Your task to perform on an android device: Show me recent news Image 0: 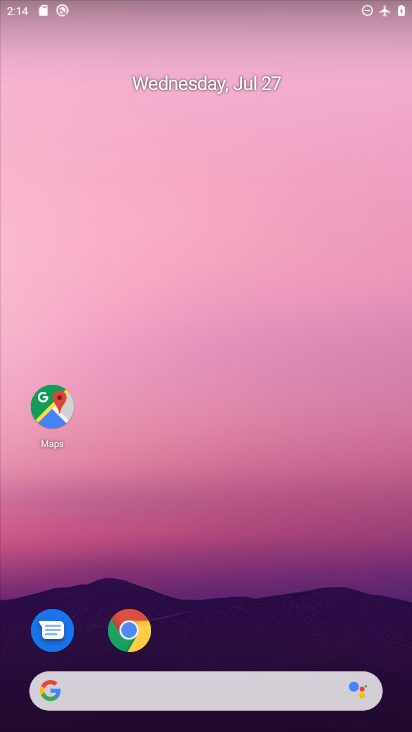
Step 0: drag from (4, 327) to (407, 305)
Your task to perform on an android device: Show me recent news Image 1: 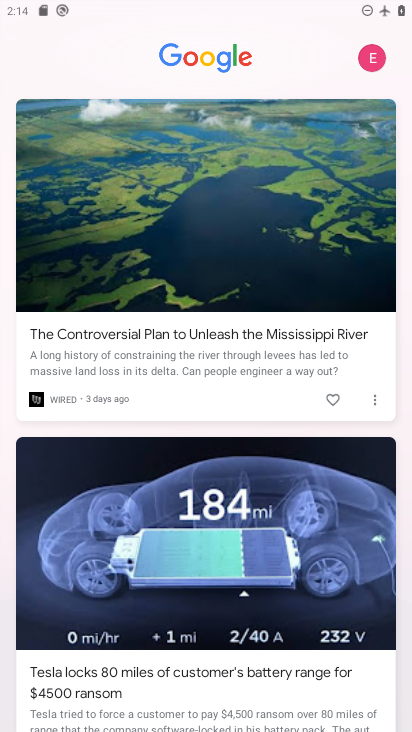
Step 1: task complete